Your task to perform on an android device: turn off sleep mode Image 0: 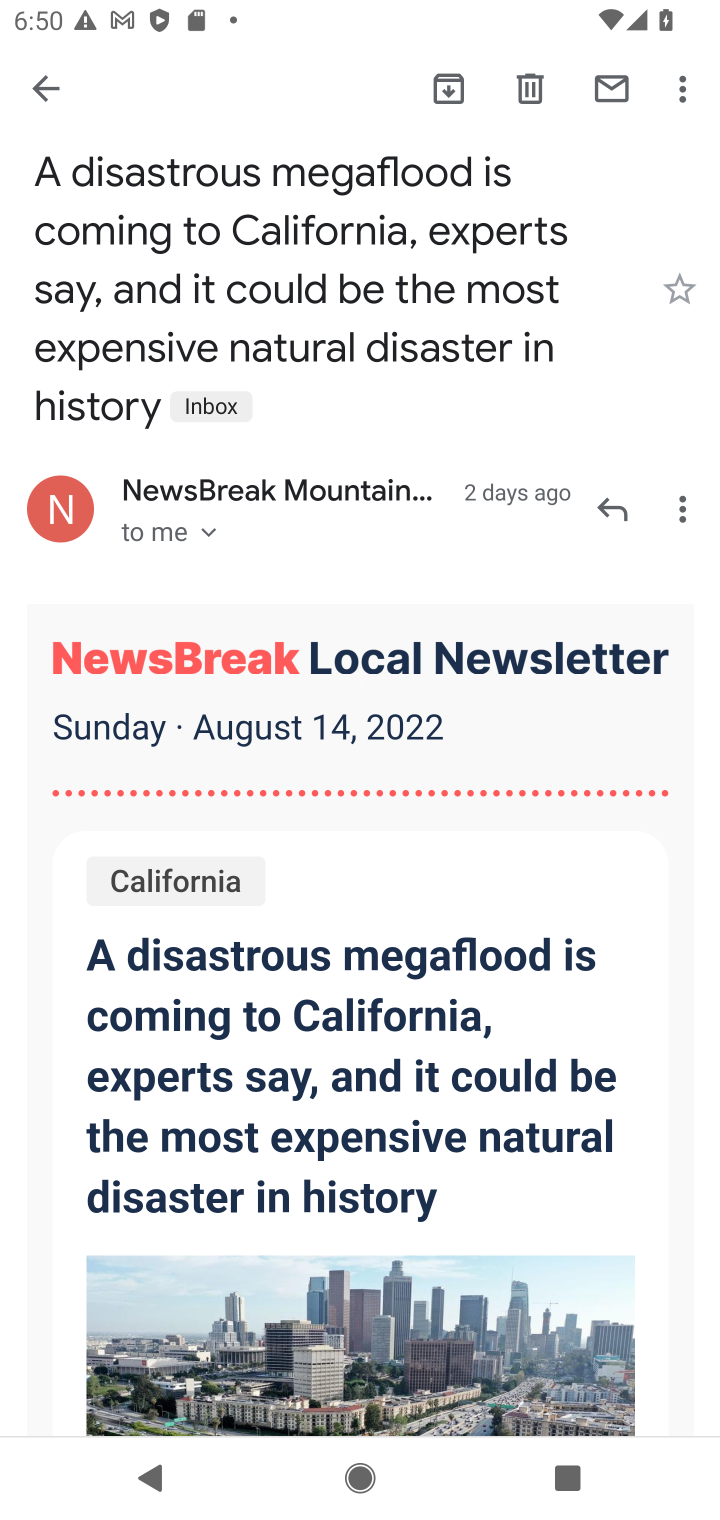
Step 0: press home button
Your task to perform on an android device: turn off sleep mode Image 1: 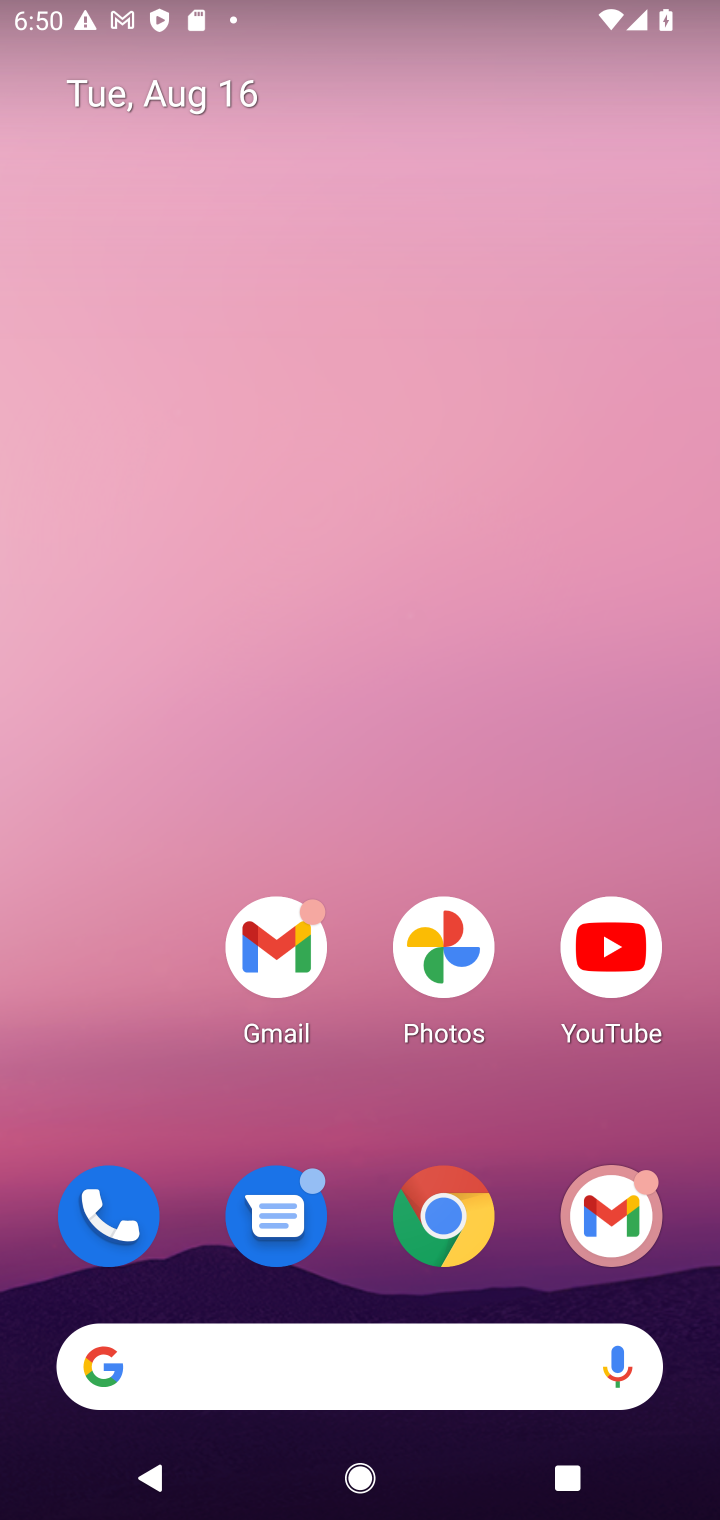
Step 1: drag from (153, 1106) to (159, 197)
Your task to perform on an android device: turn off sleep mode Image 2: 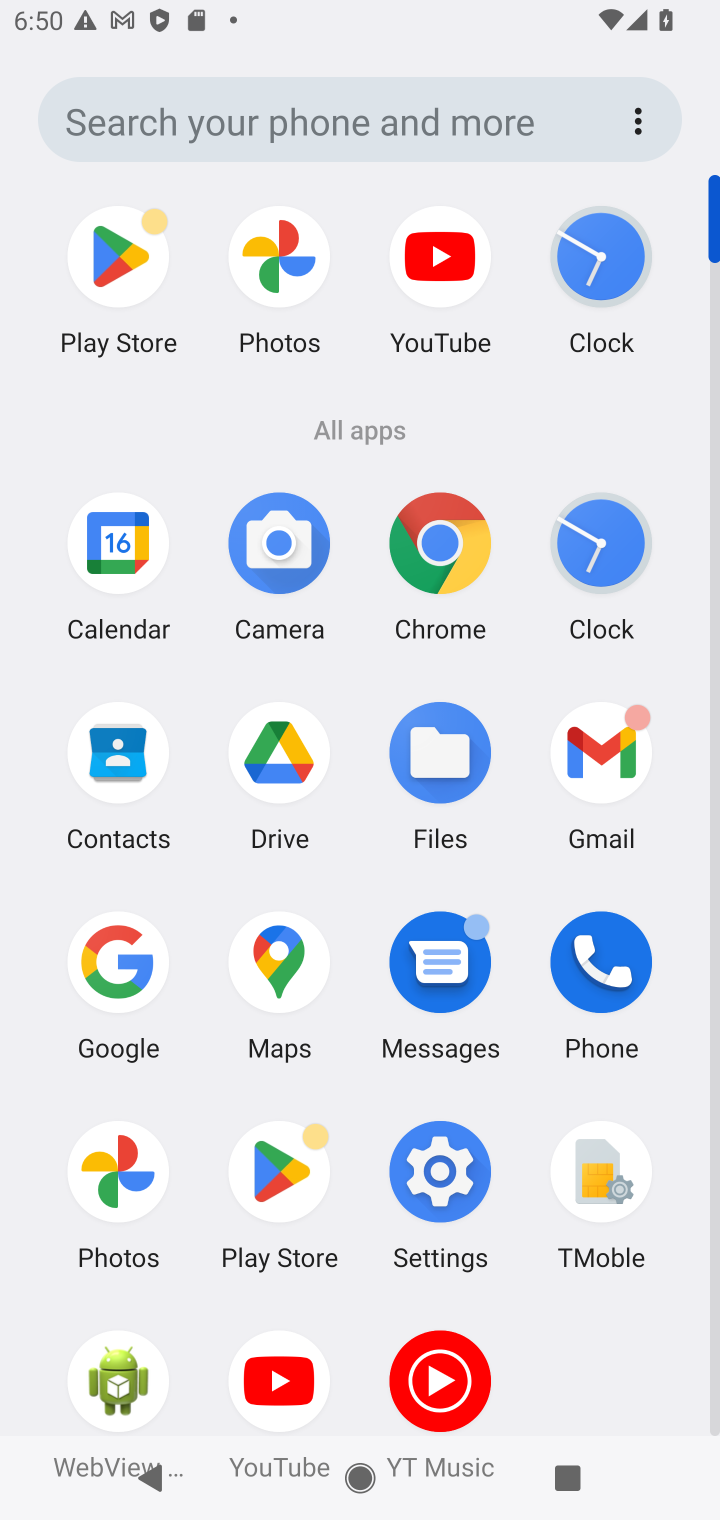
Step 2: click (419, 1194)
Your task to perform on an android device: turn off sleep mode Image 3: 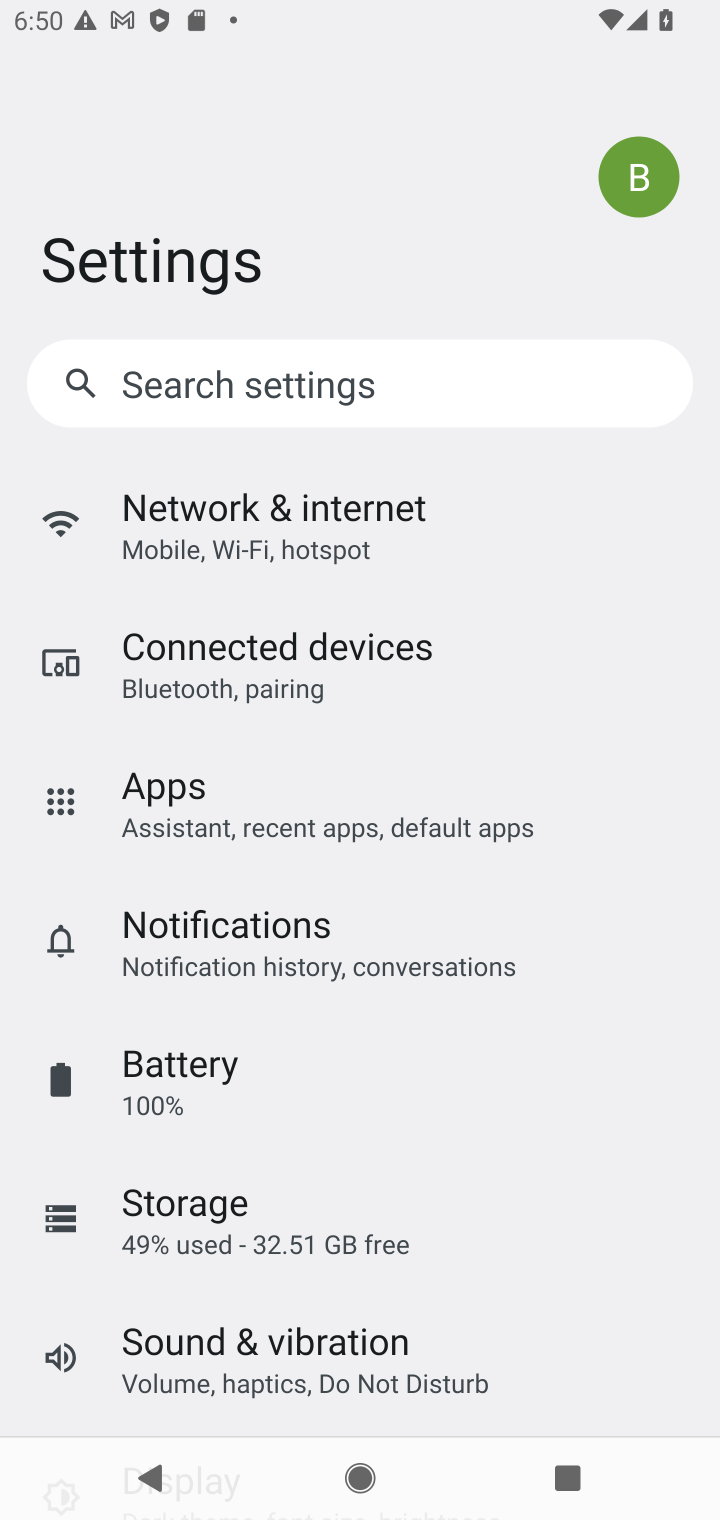
Step 3: drag from (652, 1122) to (657, 890)
Your task to perform on an android device: turn off sleep mode Image 4: 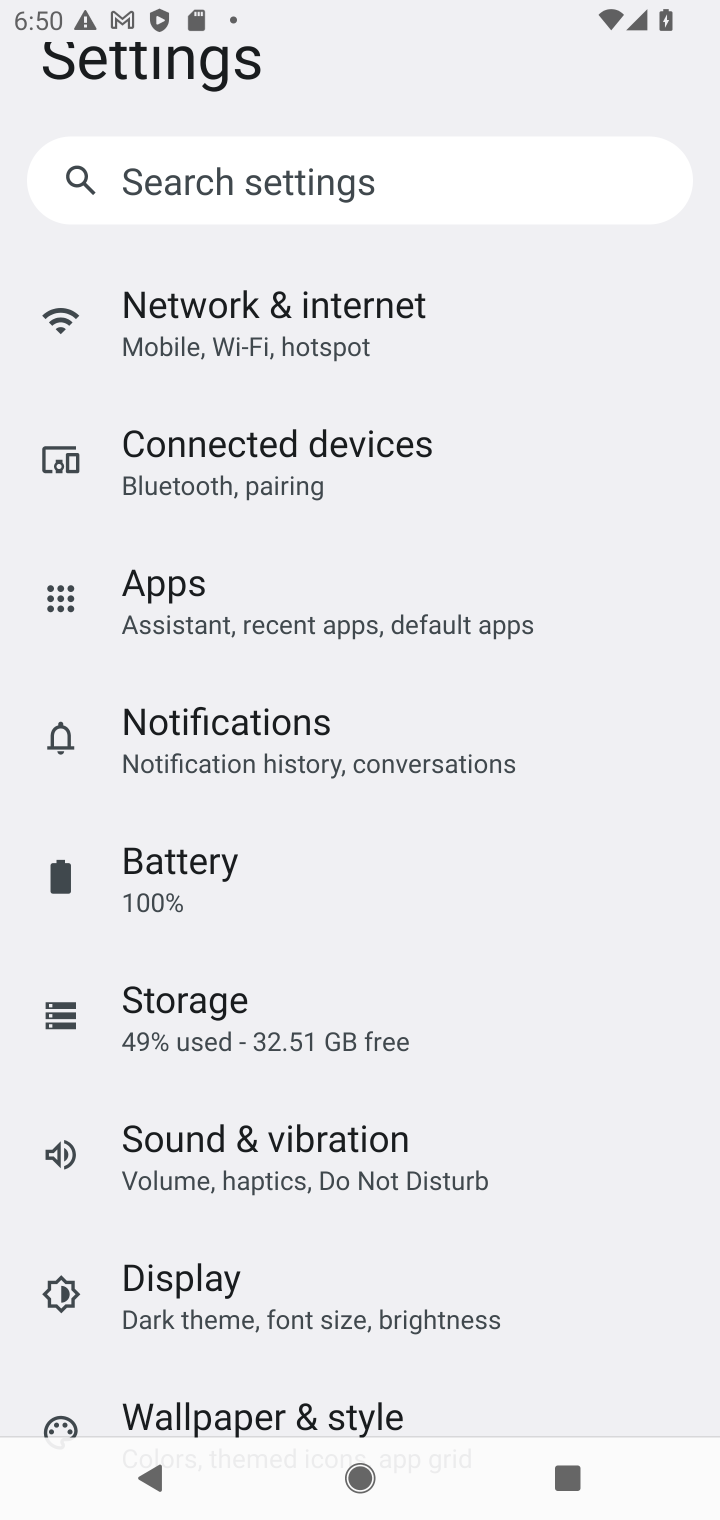
Step 4: drag from (572, 1181) to (618, 917)
Your task to perform on an android device: turn off sleep mode Image 5: 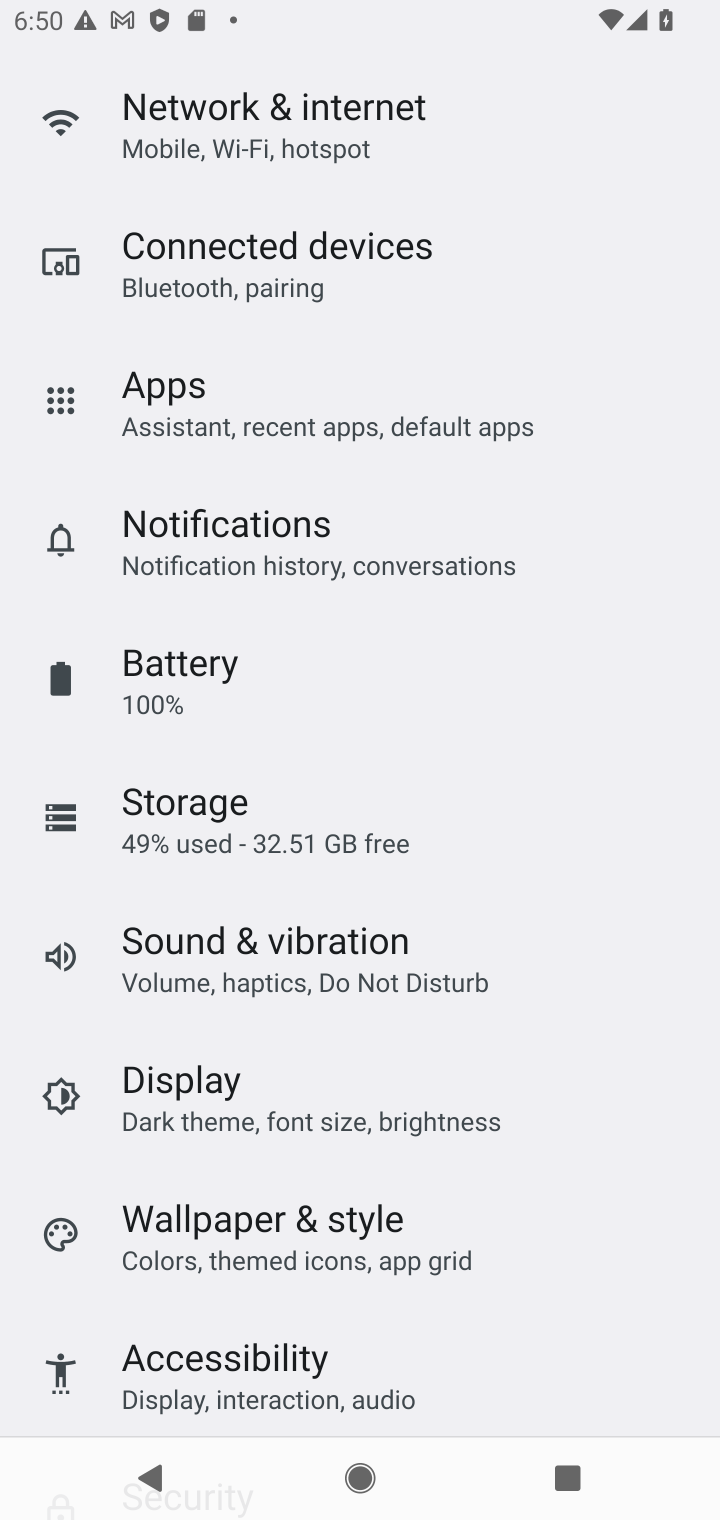
Step 5: drag from (603, 1152) to (605, 942)
Your task to perform on an android device: turn off sleep mode Image 6: 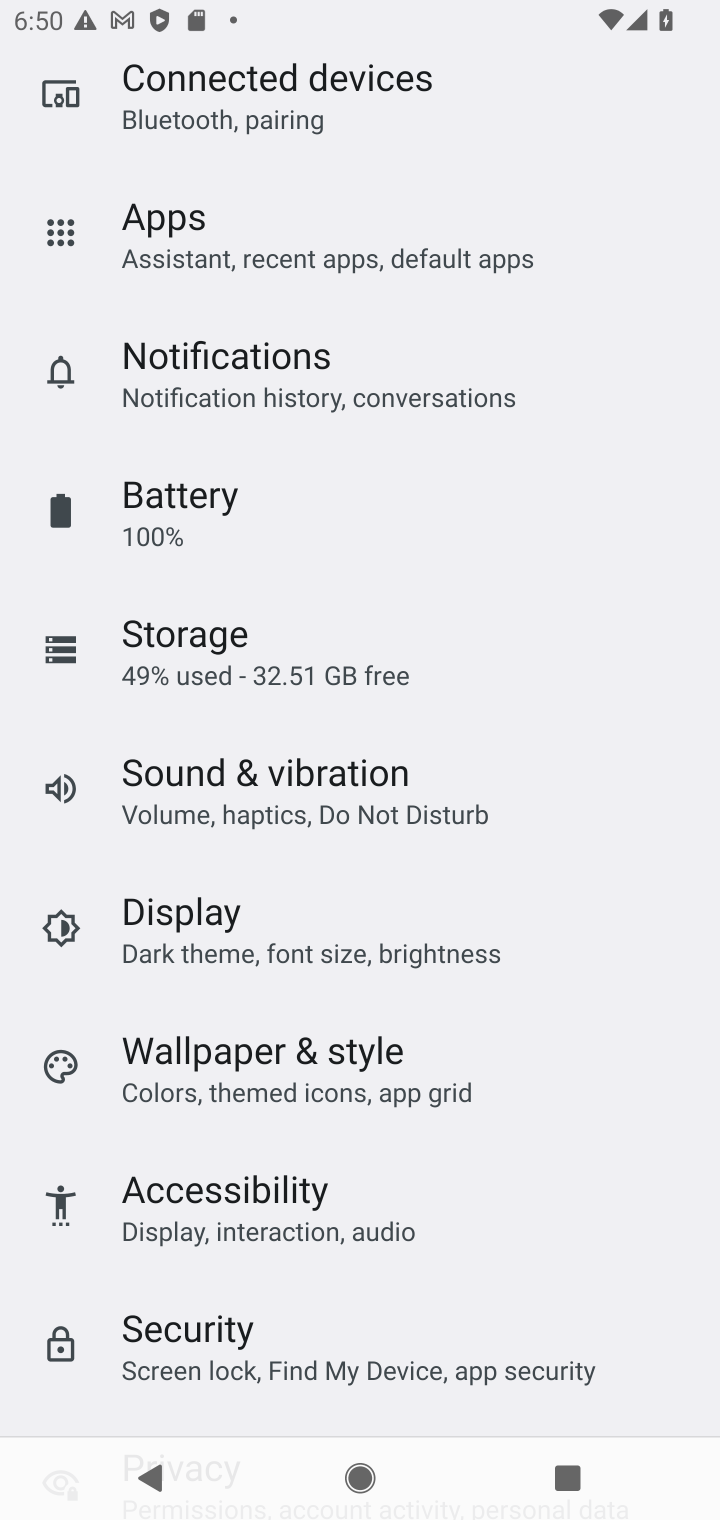
Step 6: drag from (609, 1174) to (611, 841)
Your task to perform on an android device: turn off sleep mode Image 7: 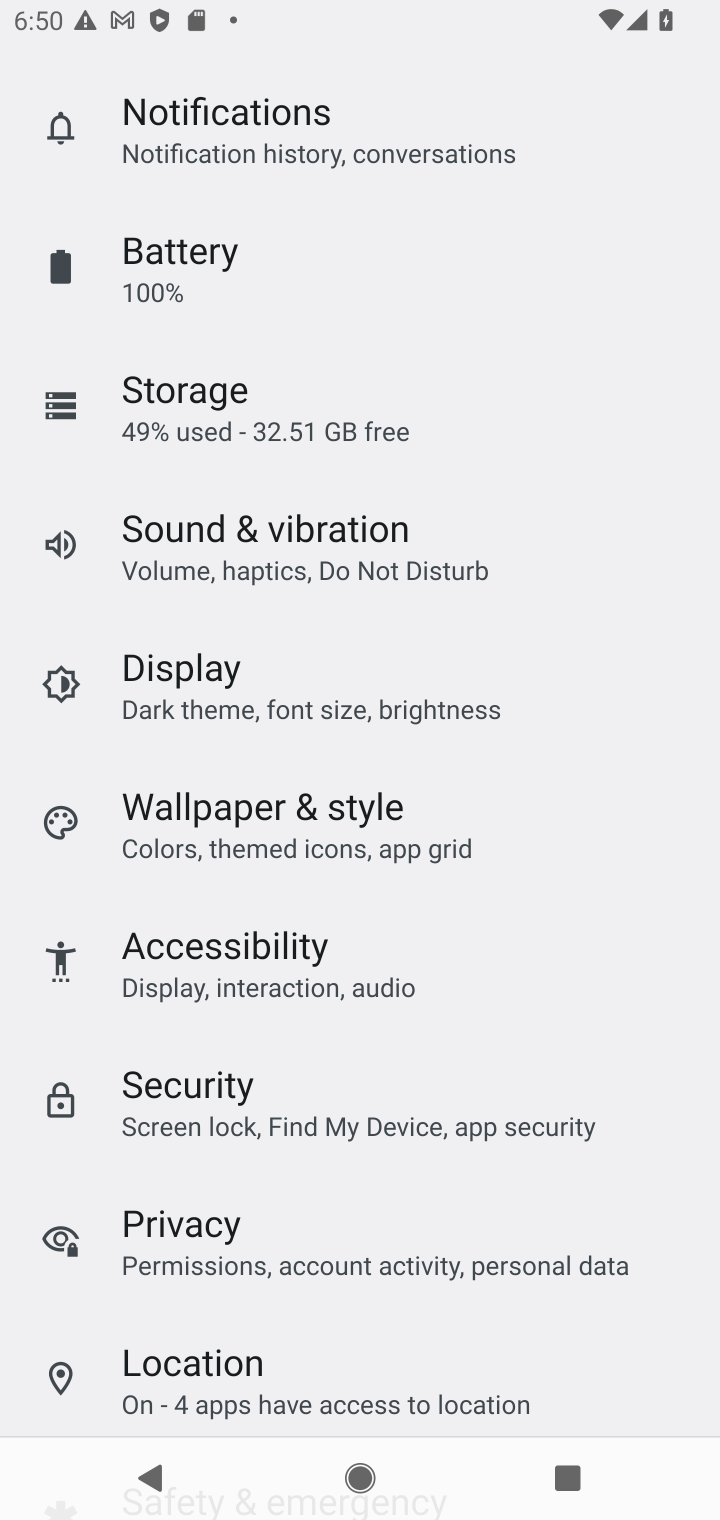
Step 7: click (520, 709)
Your task to perform on an android device: turn off sleep mode Image 8: 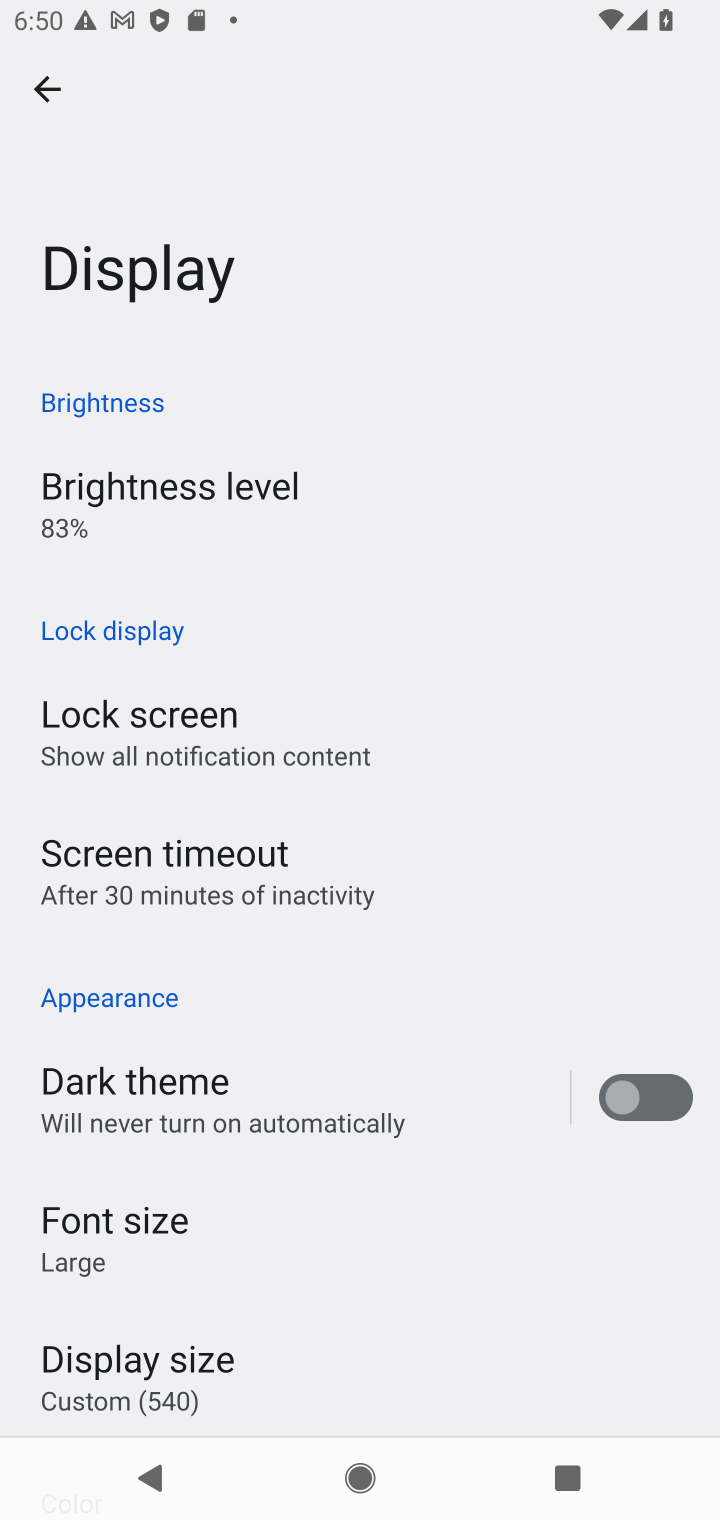
Step 8: task complete